Your task to perform on an android device: Go to Android settings Image 0: 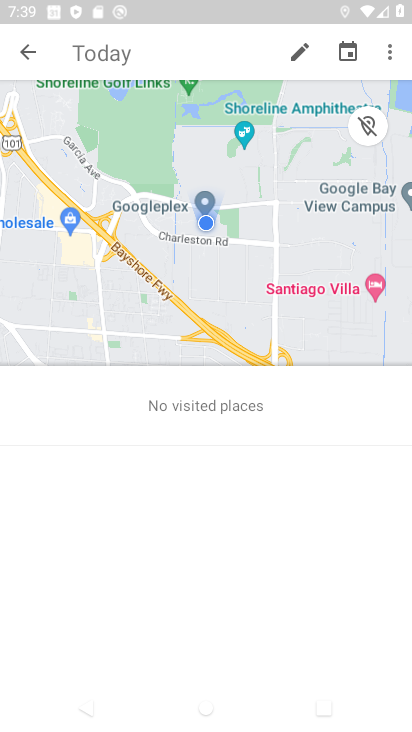
Step 0: press home button
Your task to perform on an android device: Go to Android settings Image 1: 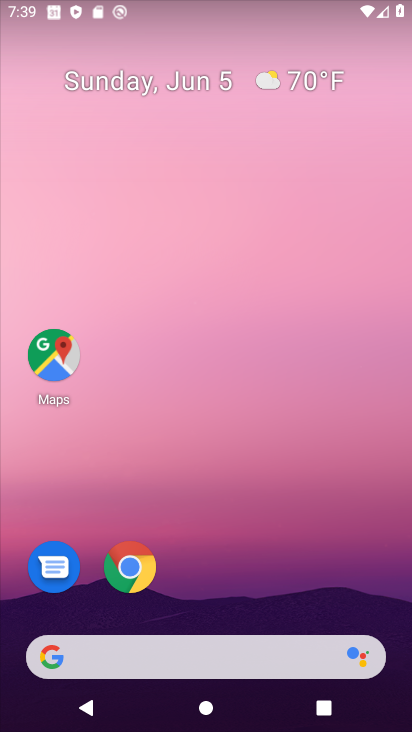
Step 1: drag from (190, 598) to (214, 104)
Your task to perform on an android device: Go to Android settings Image 2: 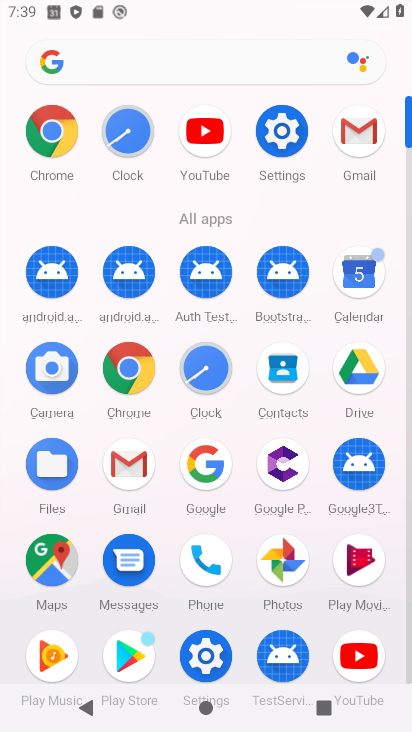
Step 2: click (280, 131)
Your task to perform on an android device: Go to Android settings Image 3: 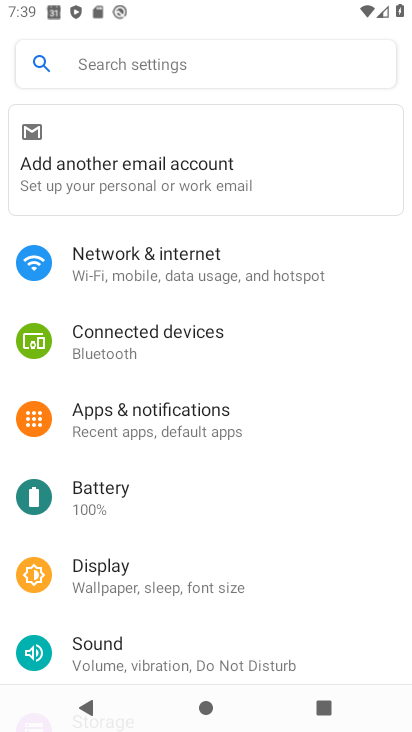
Step 3: drag from (128, 623) to (115, 262)
Your task to perform on an android device: Go to Android settings Image 4: 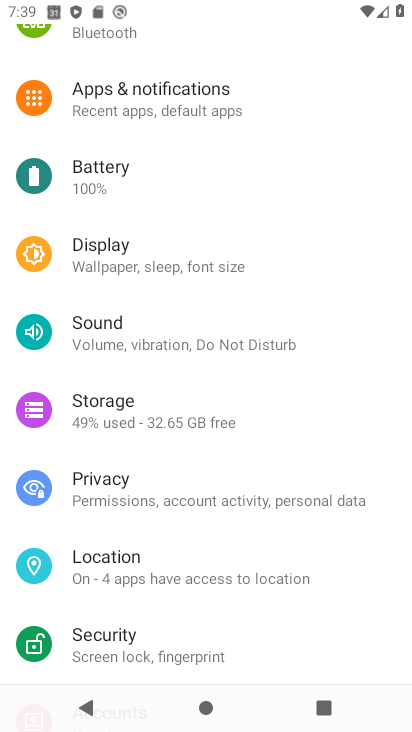
Step 4: drag from (144, 599) to (137, 213)
Your task to perform on an android device: Go to Android settings Image 5: 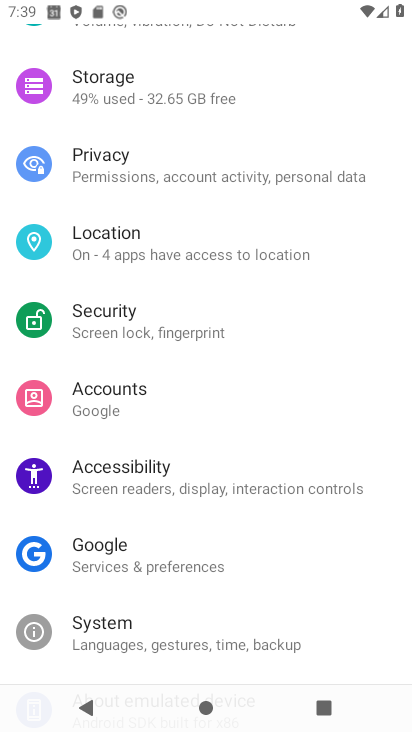
Step 5: drag from (104, 658) to (104, 325)
Your task to perform on an android device: Go to Android settings Image 6: 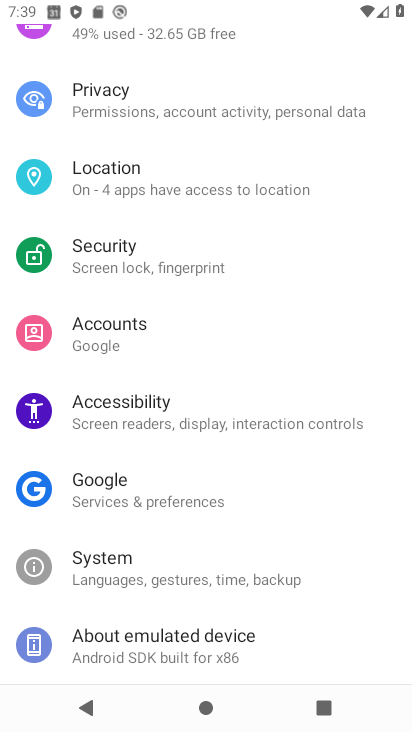
Step 6: click (112, 654)
Your task to perform on an android device: Go to Android settings Image 7: 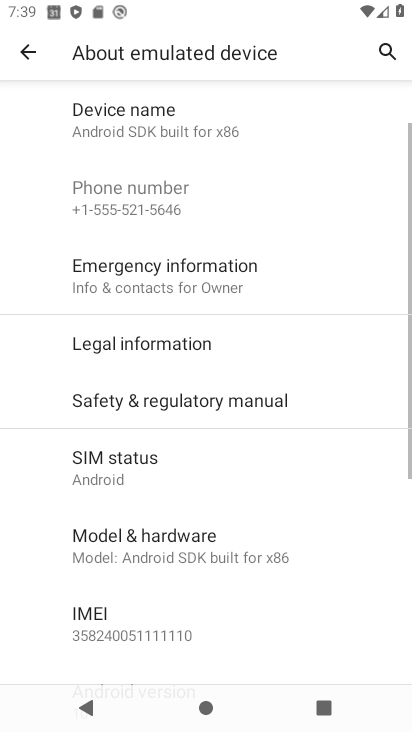
Step 7: drag from (154, 594) to (167, 236)
Your task to perform on an android device: Go to Android settings Image 8: 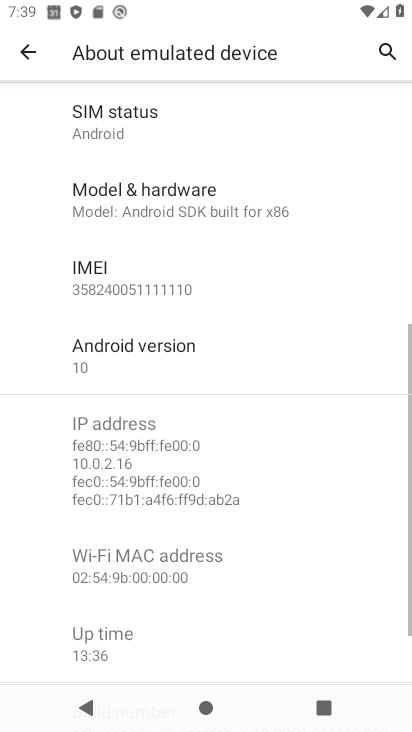
Step 8: click (123, 351)
Your task to perform on an android device: Go to Android settings Image 9: 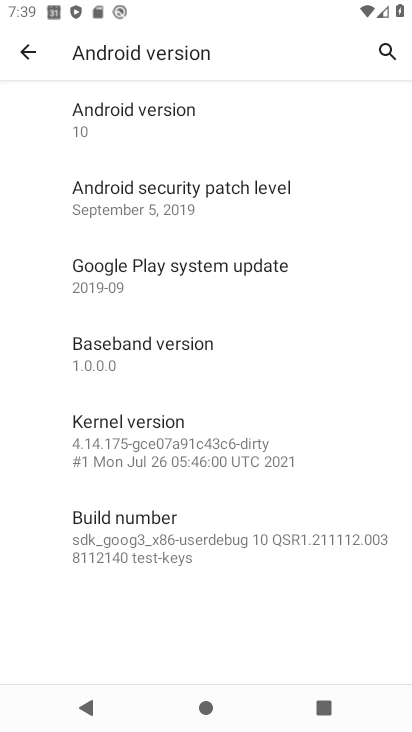
Step 9: task complete